Your task to perform on an android device: stop showing notifications on the lock screen Image 0: 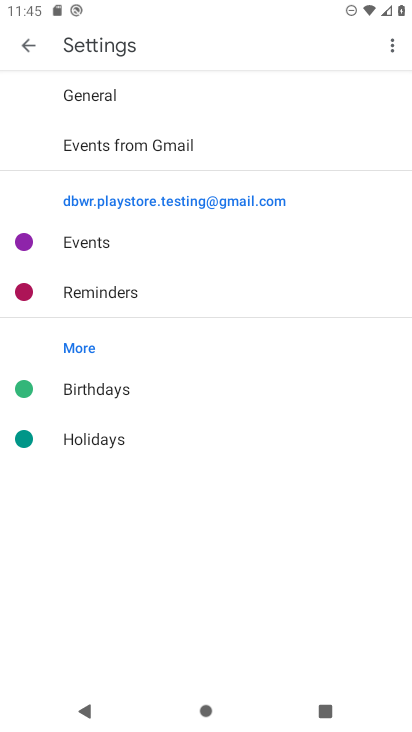
Step 0: press home button
Your task to perform on an android device: stop showing notifications on the lock screen Image 1: 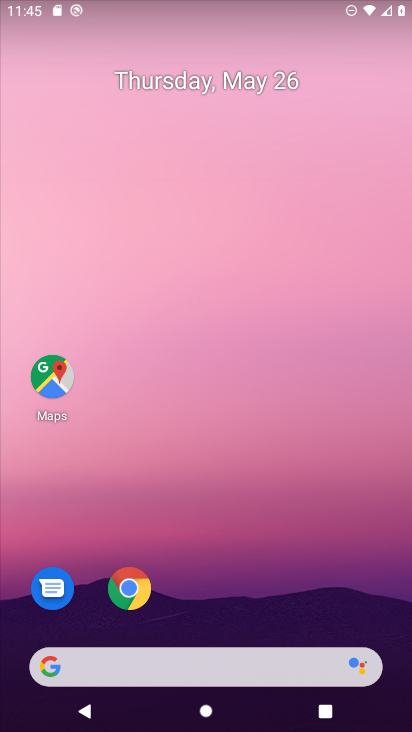
Step 1: drag from (378, 621) to (350, 109)
Your task to perform on an android device: stop showing notifications on the lock screen Image 2: 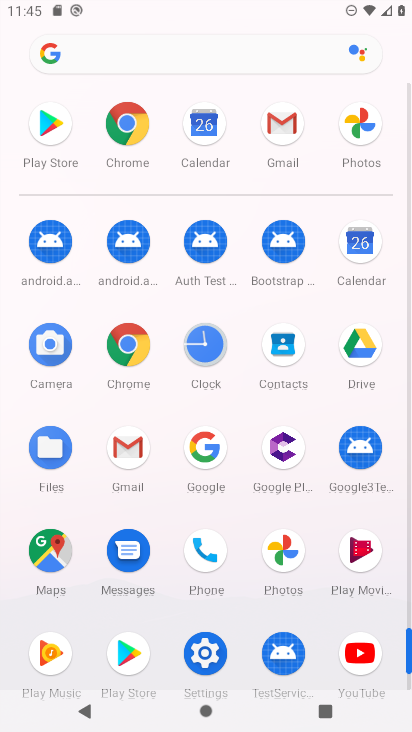
Step 2: click (202, 654)
Your task to perform on an android device: stop showing notifications on the lock screen Image 3: 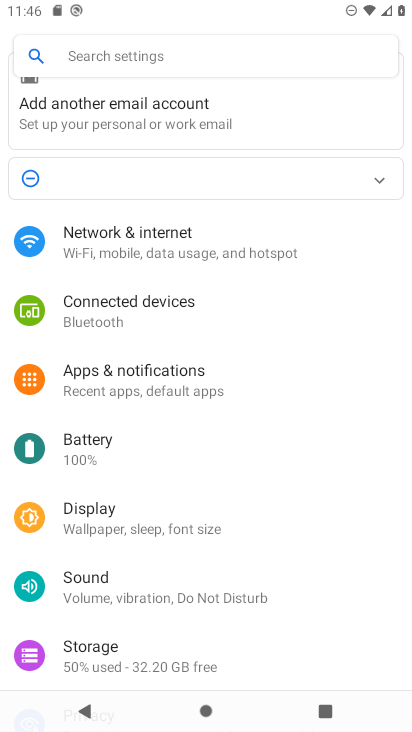
Step 3: click (136, 374)
Your task to perform on an android device: stop showing notifications on the lock screen Image 4: 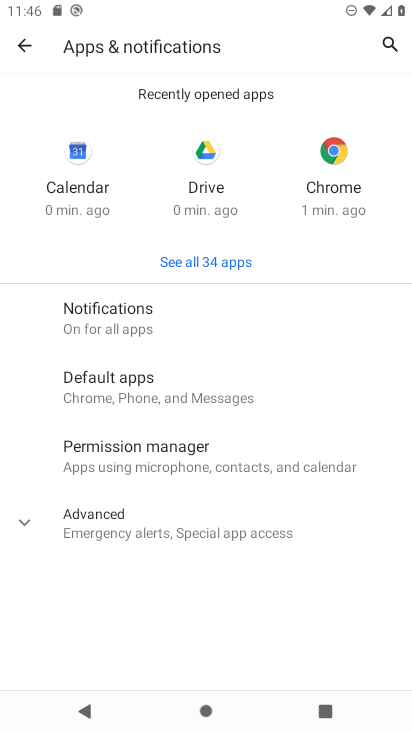
Step 4: click (103, 316)
Your task to perform on an android device: stop showing notifications on the lock screen Image 5: 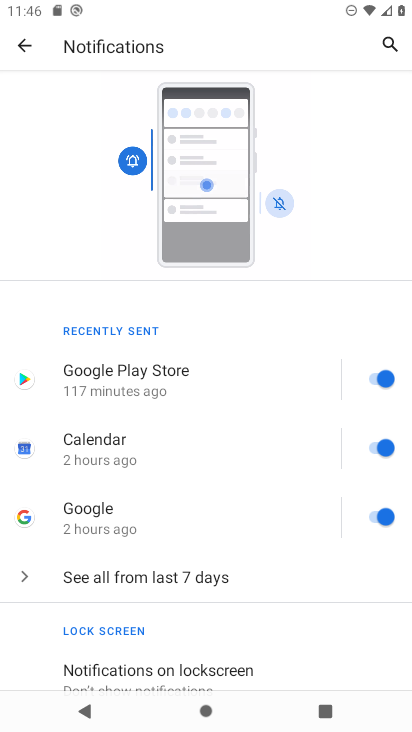
Step 5: drag from (270, 662) to (308, 162)
Your task to perform on an android device: stop showing notifications on the lock screen Image 6: 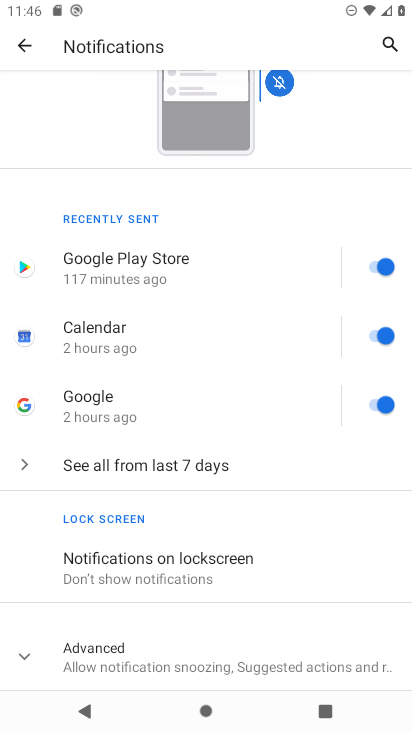
Step 6: click (128, 577)
Your task to perform on an android device: stop showing notifications on the lock screen Image 7: 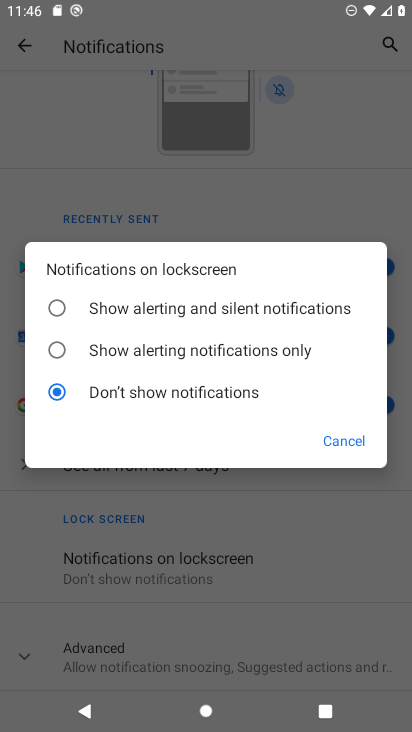
Step 7: task complete